Your task to perform on an android device: choose inbox layout in the gmail app Image 0: 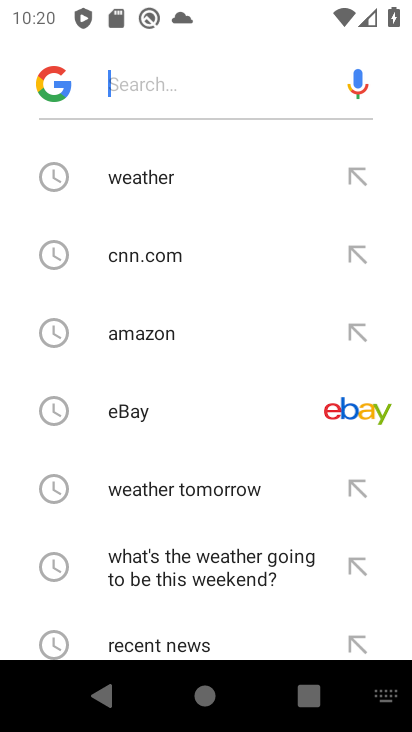
Step 0: press home button
Your task to perform on an android device: choose inbox layout in the gmail app Image 1: 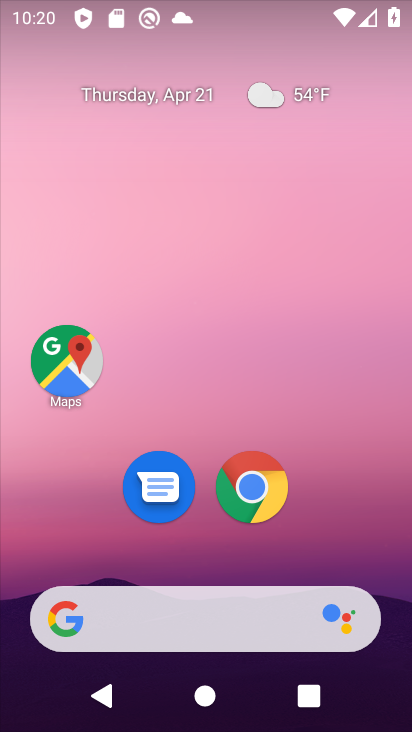
Step 1: drag from (354, 489) to (366, 98)
Your task to perform on an android device: choose inbox layout in the gmail app Image 2: 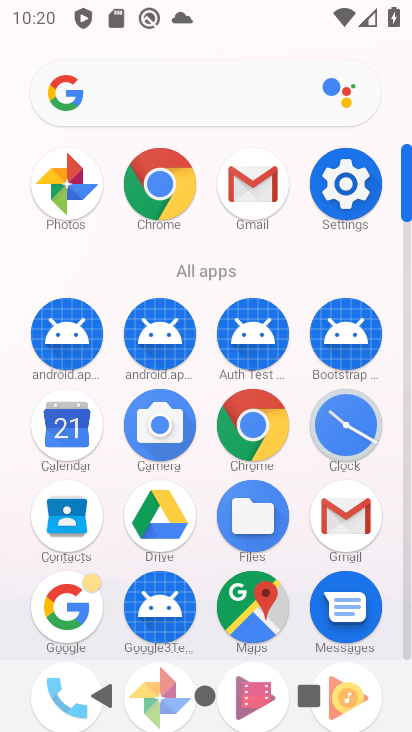
Step 2: drag from (297, 563) to (310, 273)
Your task to perform on an android device: choose inbox layout in the gmail app Image 3: 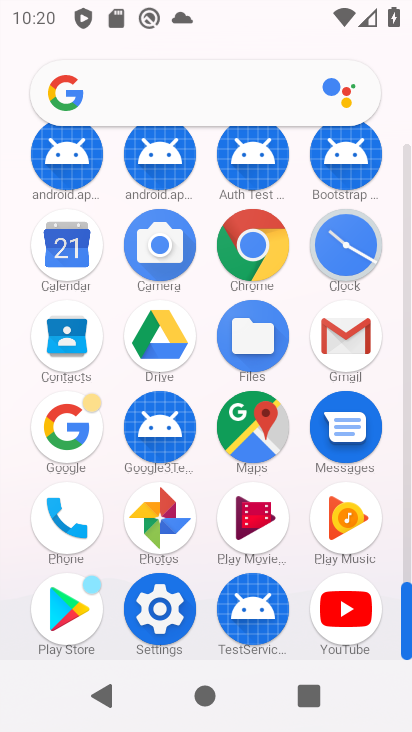
Step 3: click (339, 351)
Your task to perform on an android device: choose inbox layout in the gmail app Image 4: 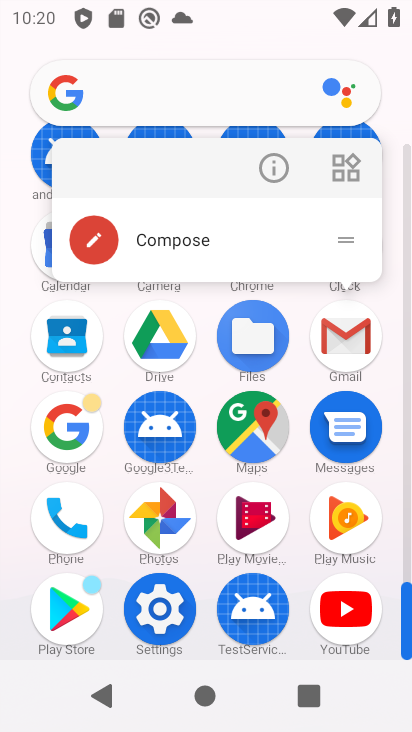
Step 4: click (357, 344)
Your task to perform on an android device: choose inbox layout in the gmail app Image 5: 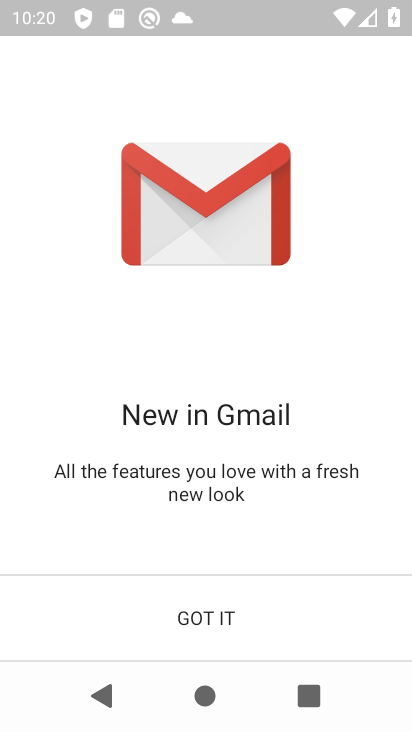
Step 5: click (204, 613)
Your task to perform on an android device: choose inbox layout in the gmail app Image 6: 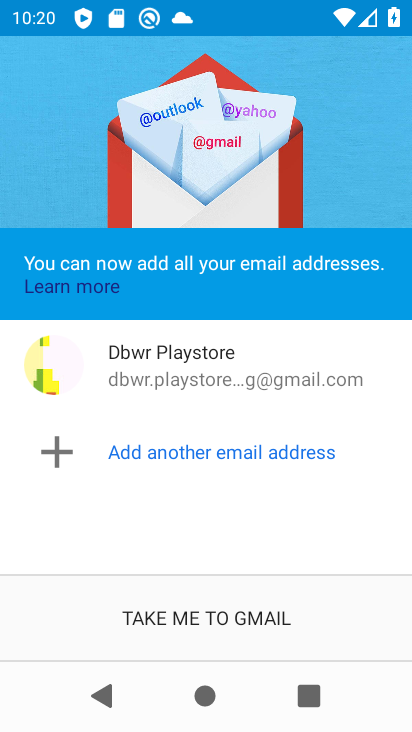
Step 6: click (223, 609)
Your task to perform on an android device: choose inbox layout in the gmail app Image 7: 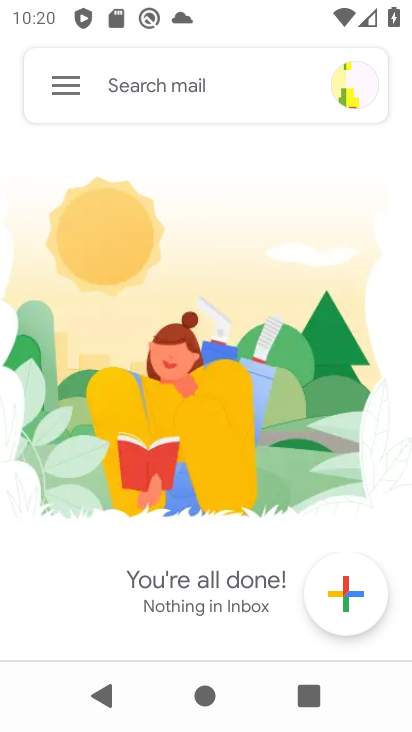
Step 7: click (59, 84)
Your task to perform on an android device: choose inbox layout in the gmail app Image 8: 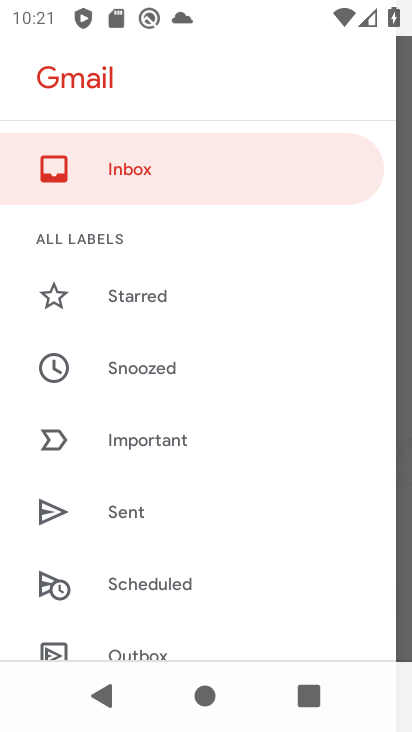
Step 8: drag from (223, 581) to (272, 236)
Your task to perform on an android device: choose inbox layout in the gmail app Image 9: 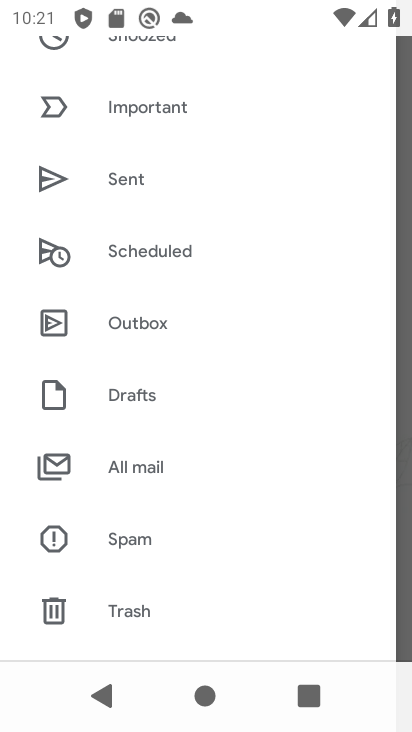
Step 9: drag from (287, 508) to (291, 213)
Your task to perform on an android device: choose inbox layout in the gmail app Image 10: 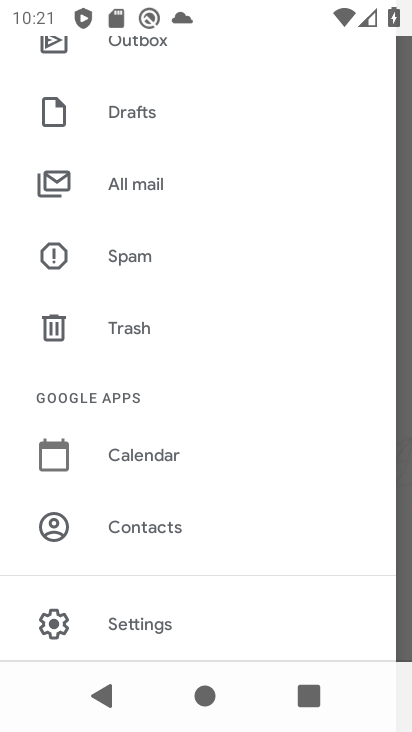
Step 10: click (137, 630)
Your task to perform on an android device: choose inbox layout in the gmail app Image 11: 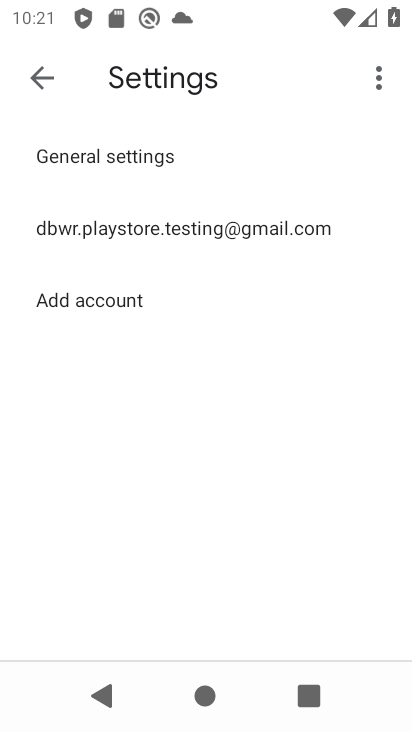
Step 11: click (237, 217)
Your task to perform on an android device: choose inbox layout in the gmail app Image 12: 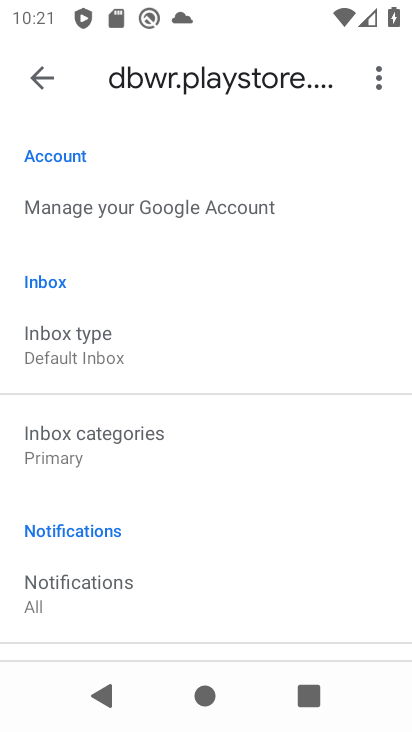
Step 12: click (111, 350)
Your task to perform on an android device: choose inbox layout in the gmail app Image 13: 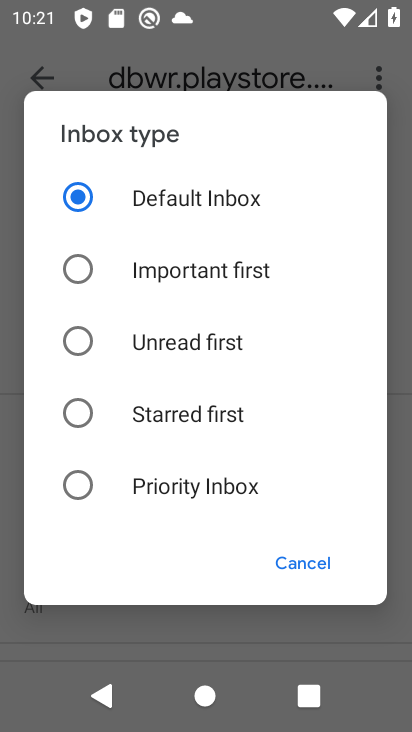
Step 13: click (160, 340)
Your task to perform on an android device: choose inbox layout in the gmail app Image 14: 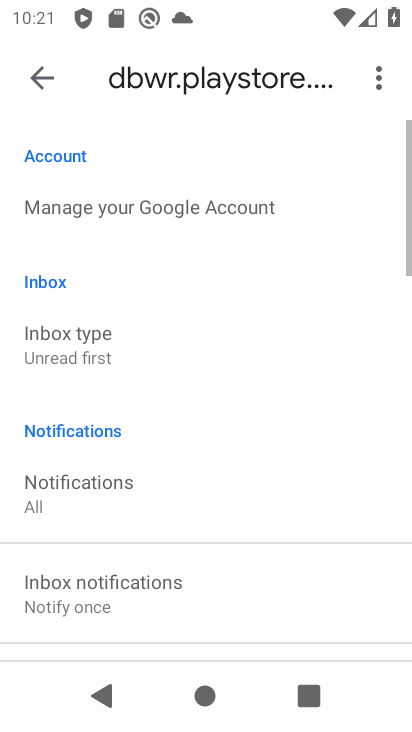
Step 14: task complete